Your task to perform on an android device: Open the calendar app, open the side menu, and click the "Day" option Image 0: 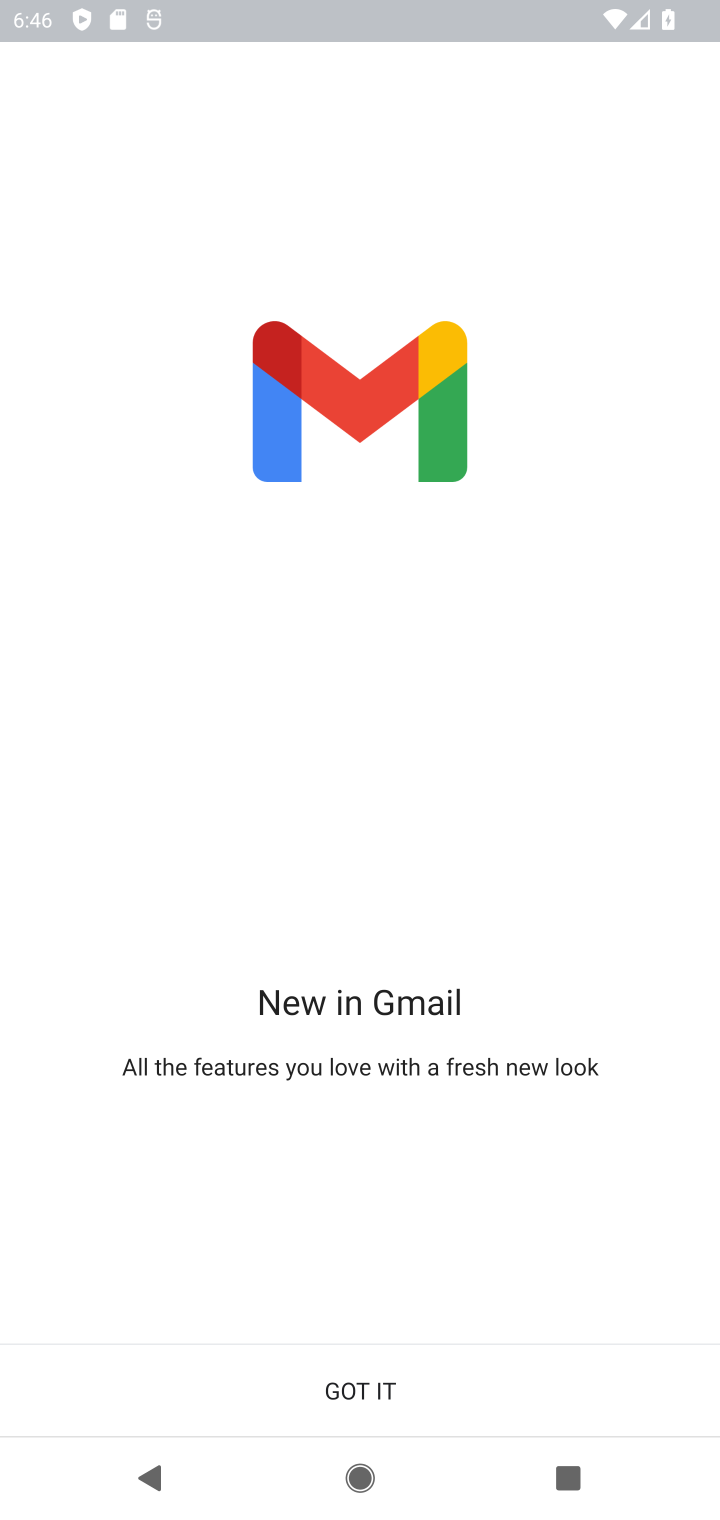
Step 0: press home button
Your task to perform on an android device: Open the calendar app, open the side menu, and click the "Day" option Image 1: 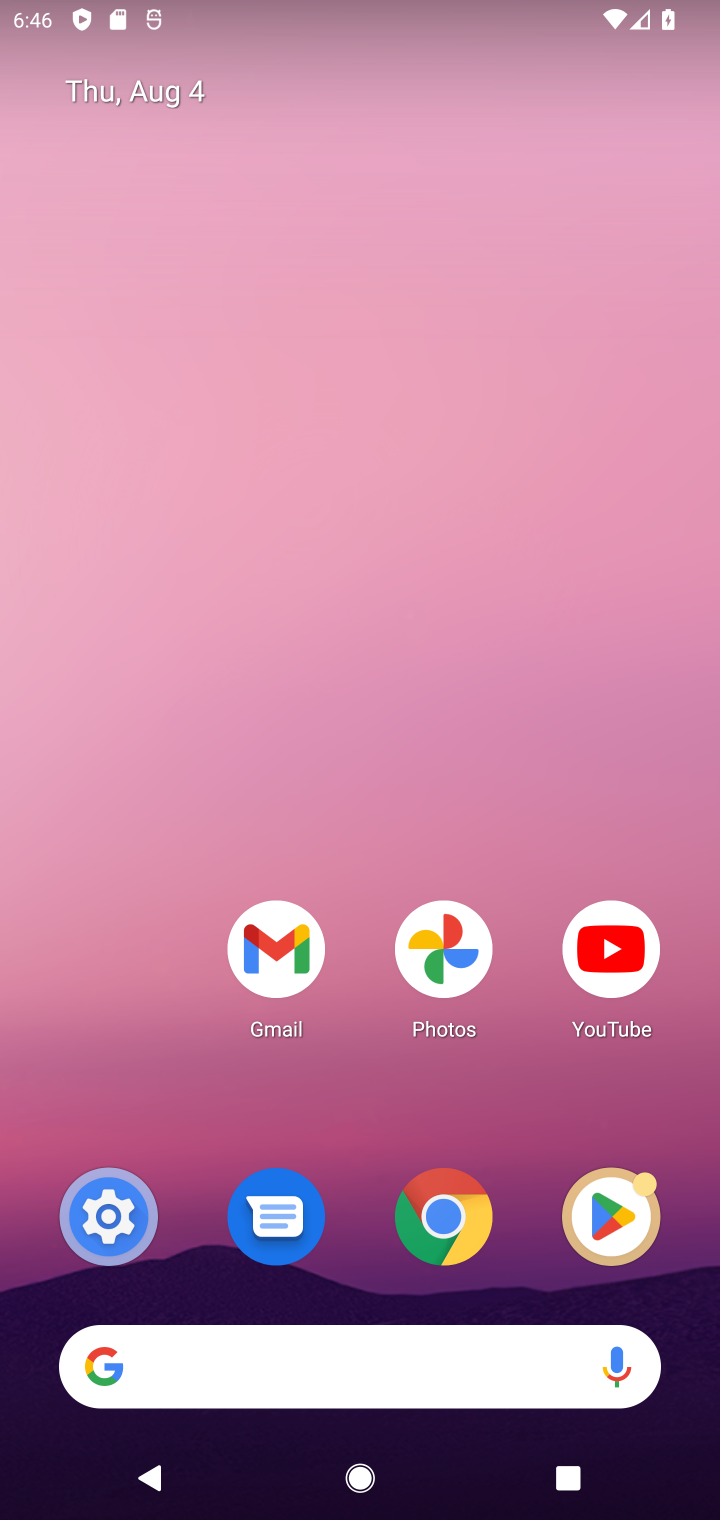
Step 1: drag from (338, 1000) to (338, 138)
Your task to perform on an android device: Open the calendar app, open the side menu, and click the "Day" option Image 2: 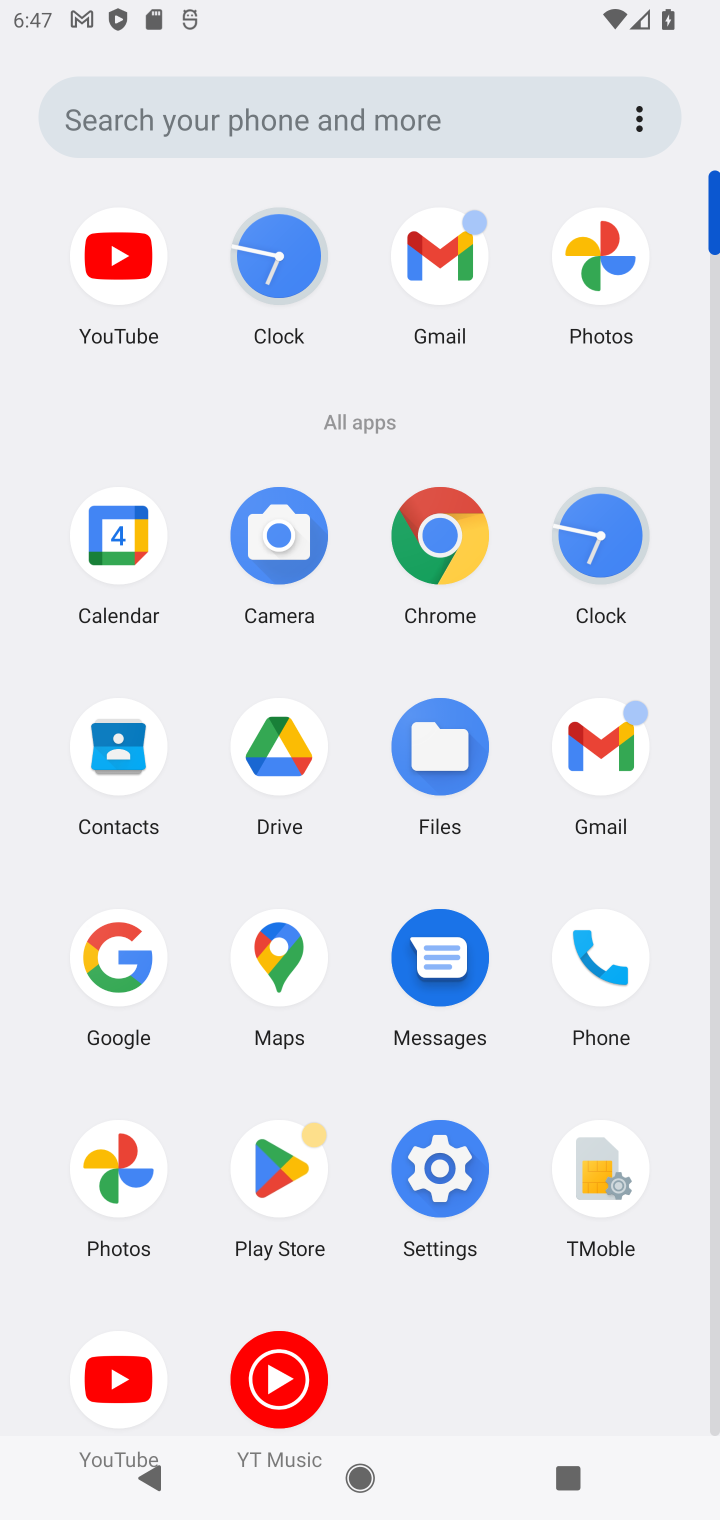
Step 2: click (93, 528)
Your task to perform on an android device: Open the calendar app, open the side menu, and click the "Day" option Image 3: 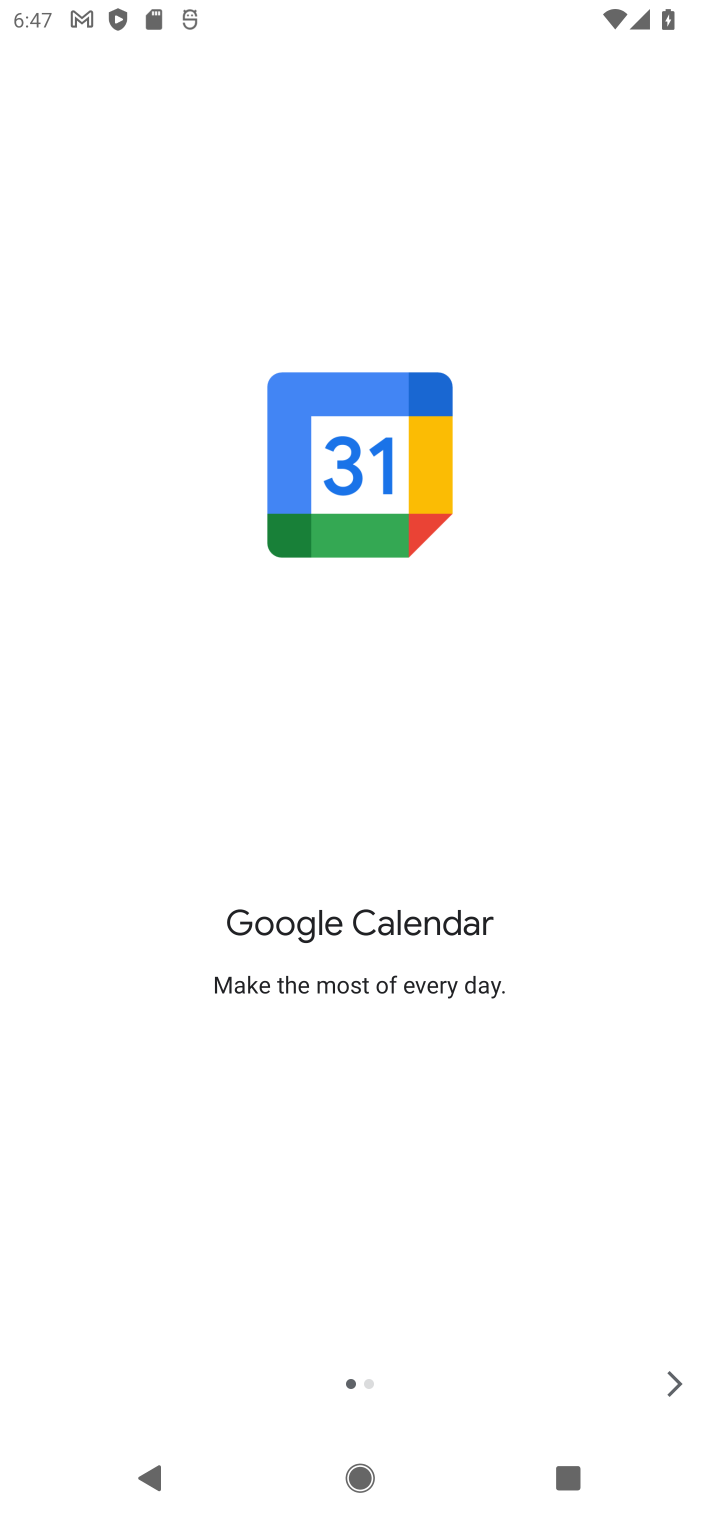
Step 3: click (669, 1387)
Your task to perform on an android device: Open the calendar app, open the side menu, and click the "Day" option Image 4: 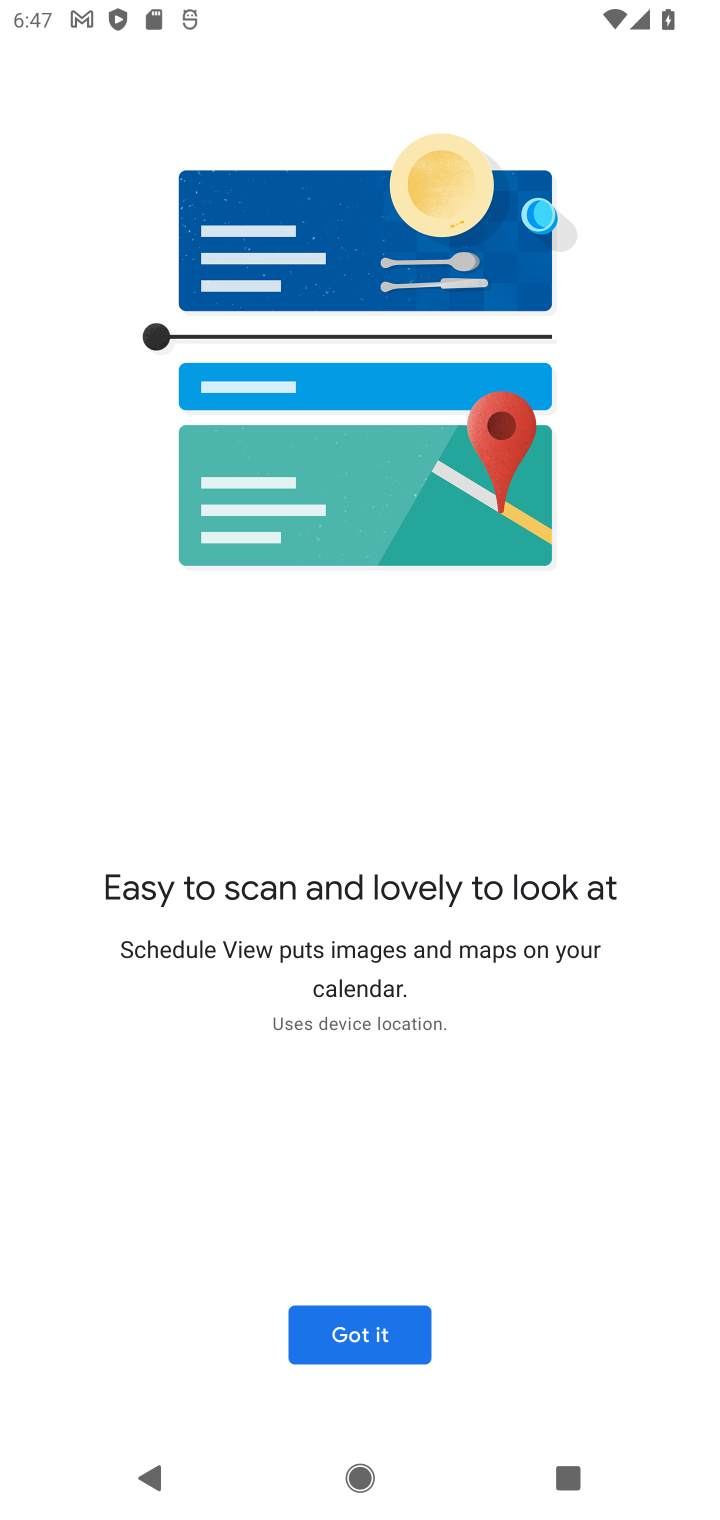
Step 4: click (379, 1342)
Your task to perform on an android device: Open the calendar app, open the side menu, and click the "Day" option Image 5: 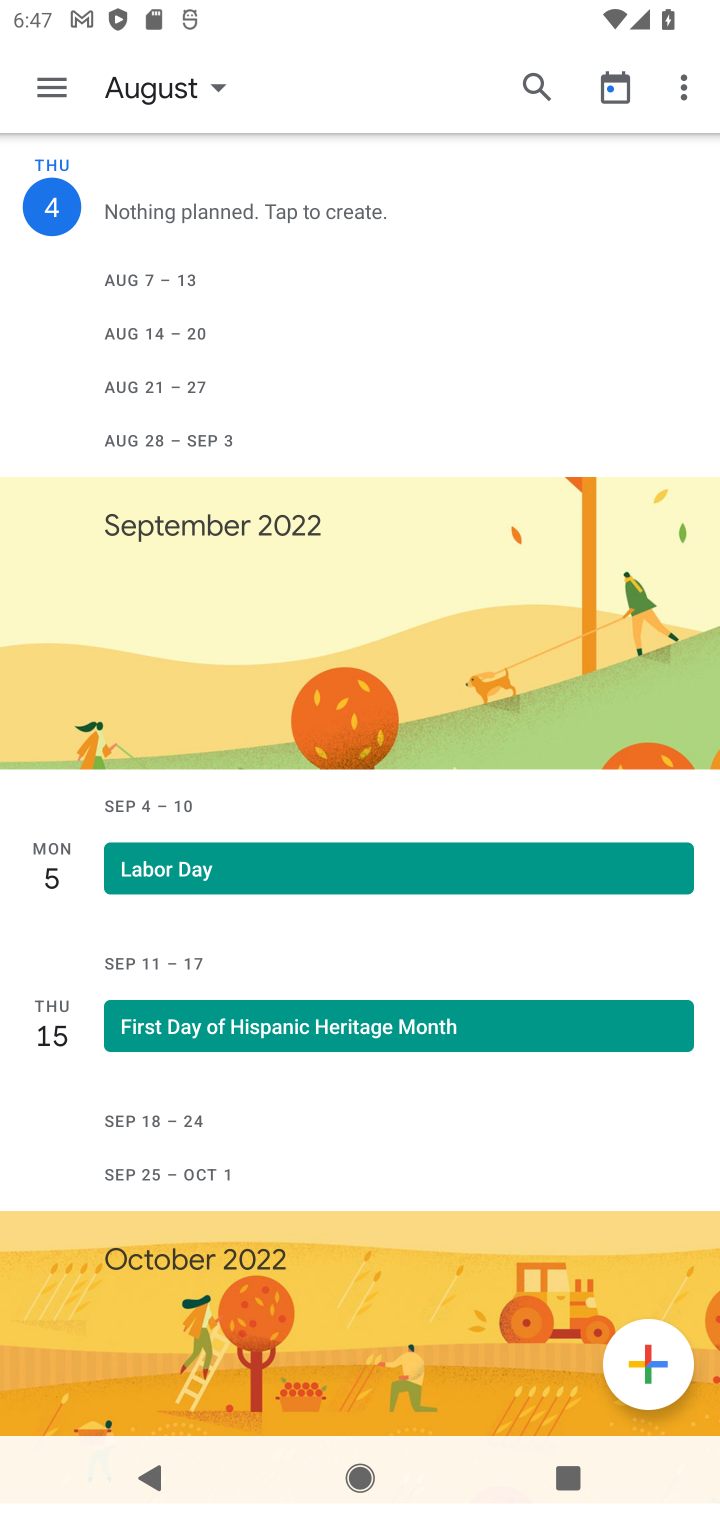
Step 5: click (53, 83)
Your task to perform on an android device: Open the calendar app, open the side menu, and click the "Day" option Image 6: 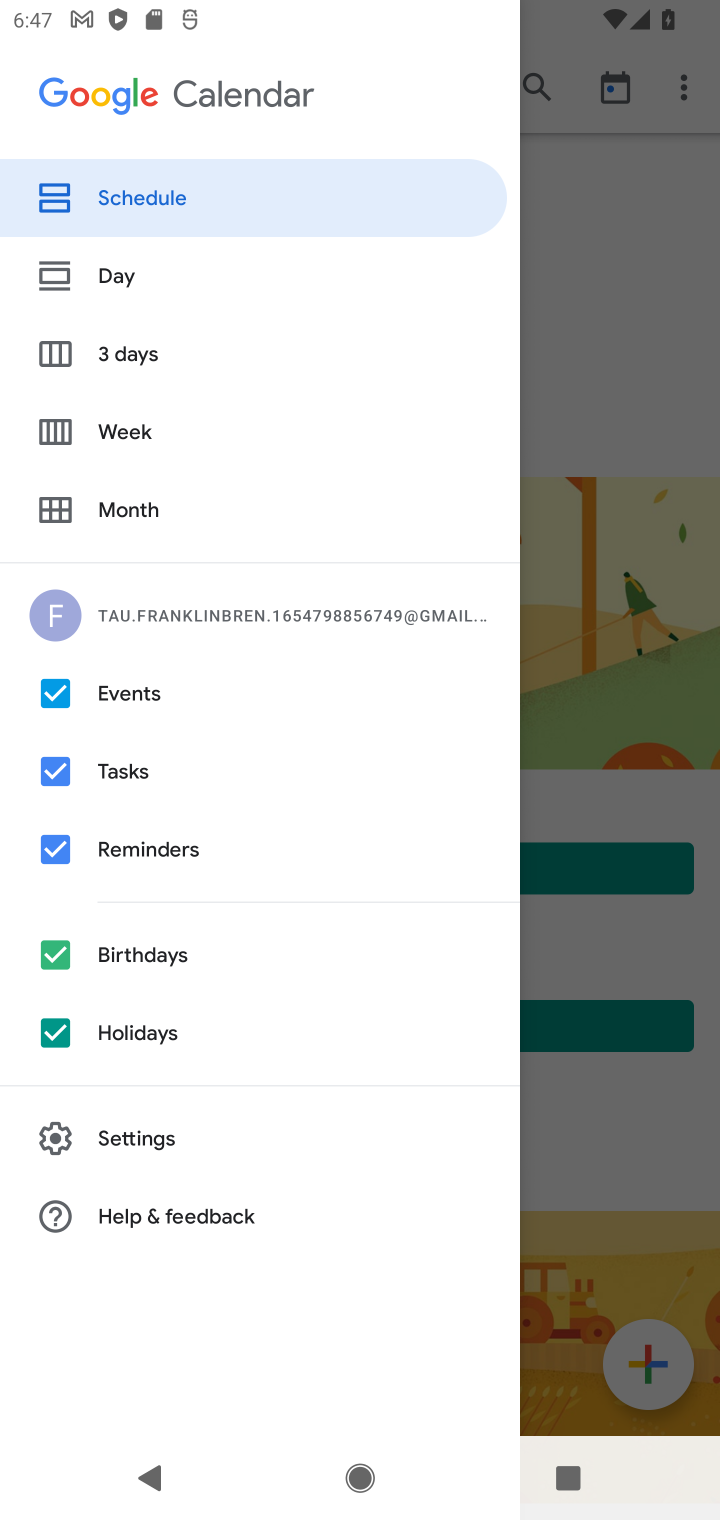
Step 6: click (117, 261)
Your task to perform on an android device: Open the calendar app, open the side menu, and click the "Day" option Image 7: 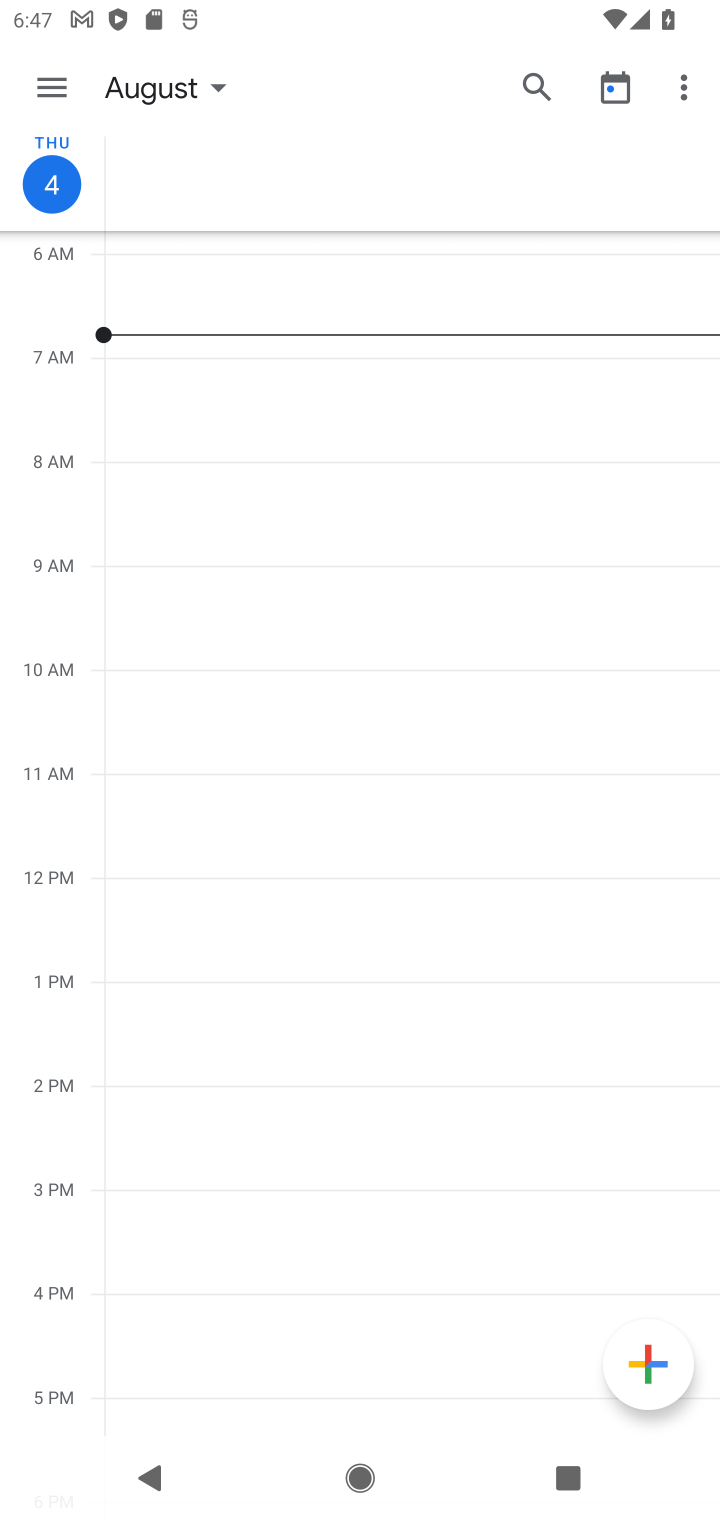
Step 7: task complete